Your task to perform on an android device: Open Wikipedia Image 0: 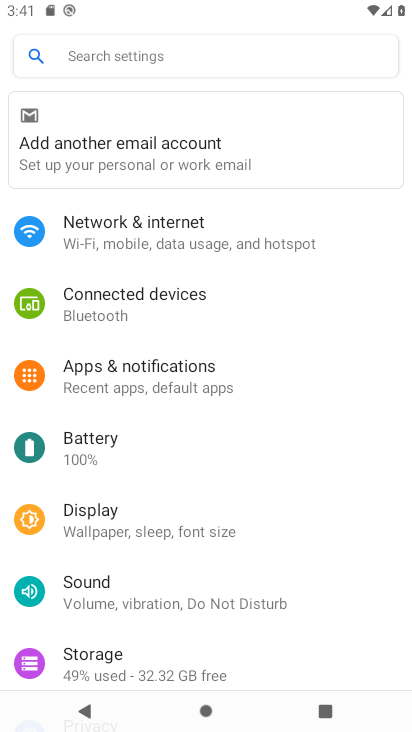
Step 0: press home button
Your task to perform on an android device: Open Wikipedia Image 1: 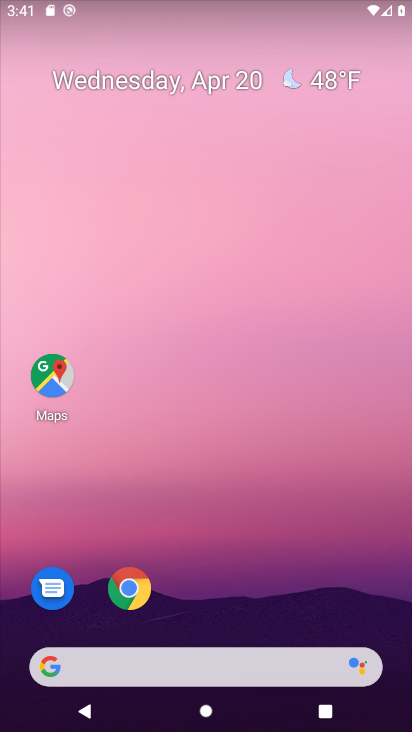
Step 1: drag from (314, 572) to (306, 154)
Your task to perform on an android device: Open Wikipedia Image 2: 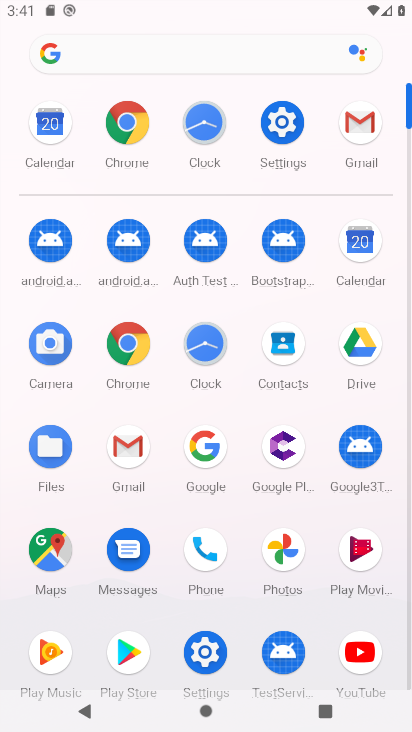
Step 2: click (132, 351)
Your task to perform on an android device: Open Wikipedia Image 3: 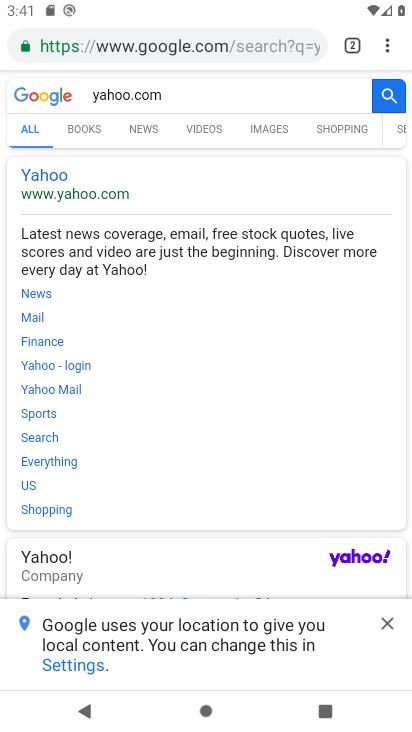
Step 3: press back button
Your task to perform on an android device: Open Wikipedia Image 4: 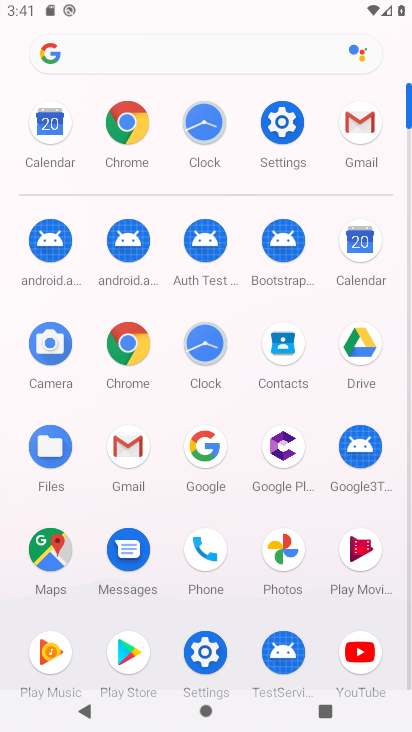
Step 4: click (128, 342)
Your task to perform on an android device: Open Wikipedia Image 5: 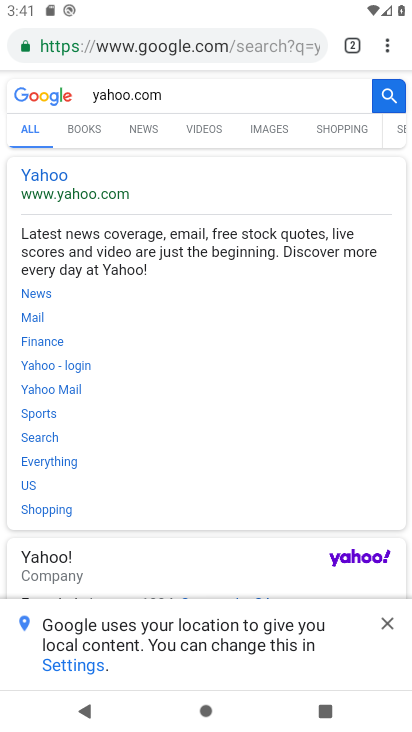
Step 5: click (179, 78)
Your task to perform on an android device: Open Wikipedia Image 6: 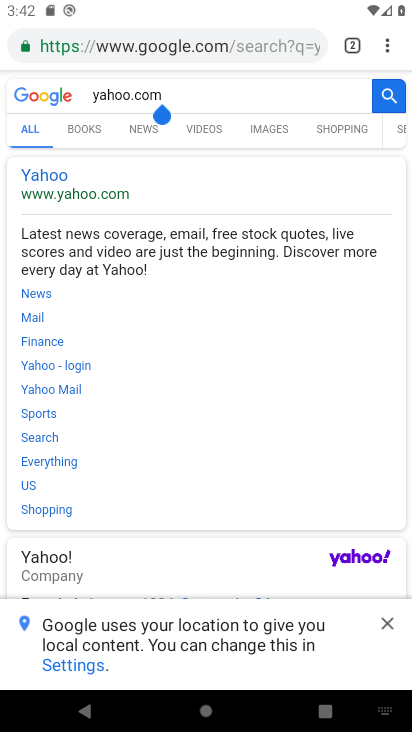
Step 6: type "wikipedia"
Your task to perform on an android device: Open Wikipedia Image 7: 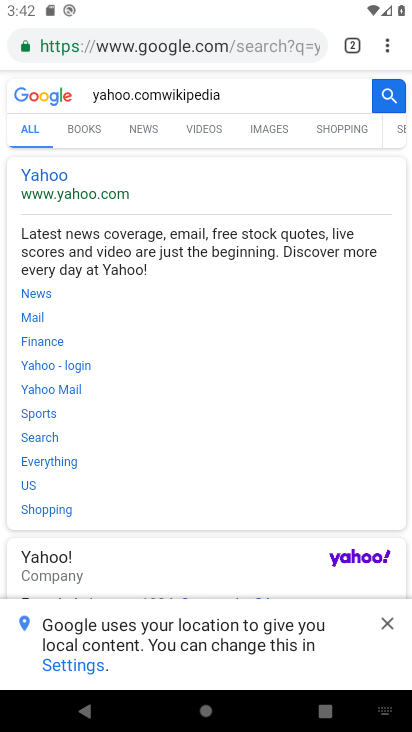
Step 7: click (273, 39)
Your task to perform on an android device: Open Wikipedia Image 8: 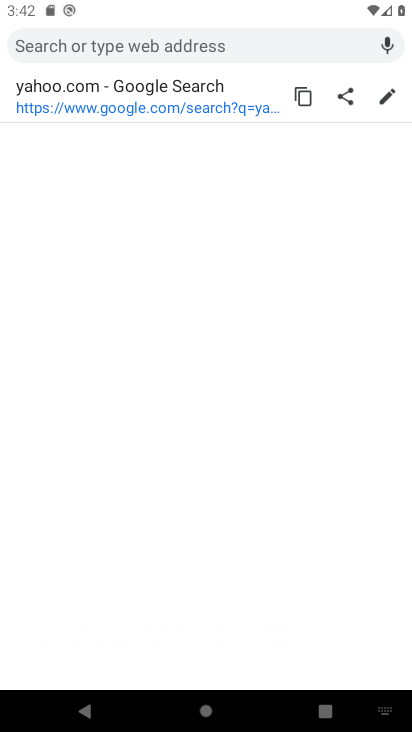
Step 8: type "wikipedia"
Your task to perform on an android device: Open Wikipedia Image 9: 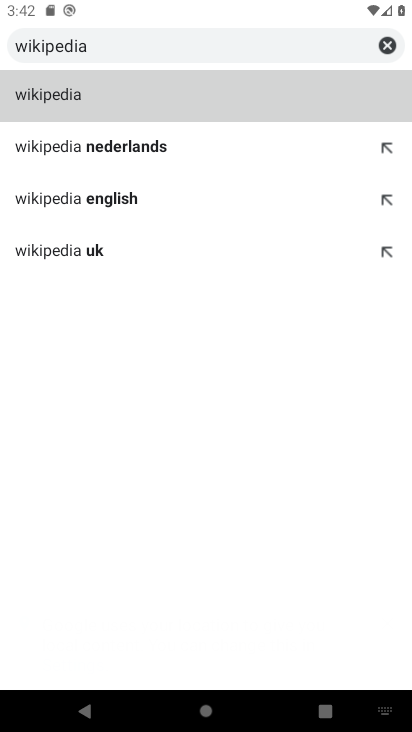
Step 9: click (50, 96)
Your task to perform on an android device: Open Wikipedia Image 10: 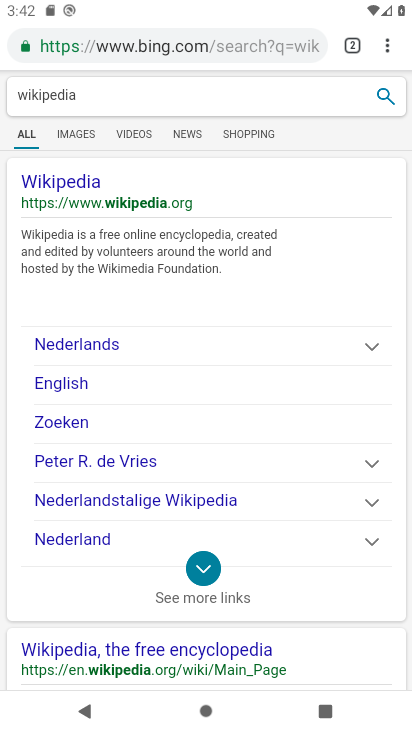
Step 10: click (37, 178)
Your task to perform on an android device: Open Wikipedia Image 11: 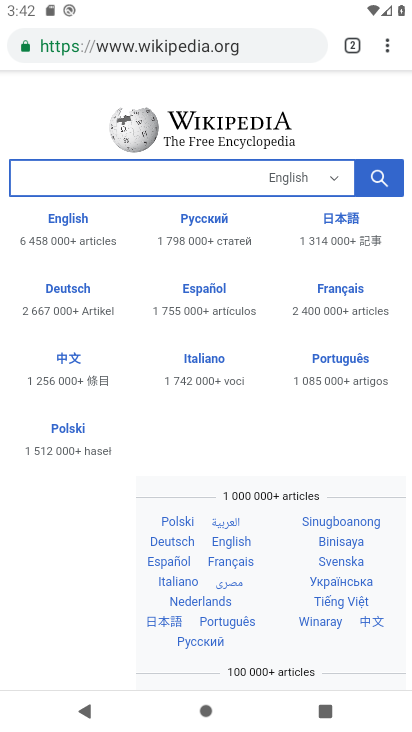
Step 11: task complete